Your task to perform on an android device: Open notification settings Image 0: 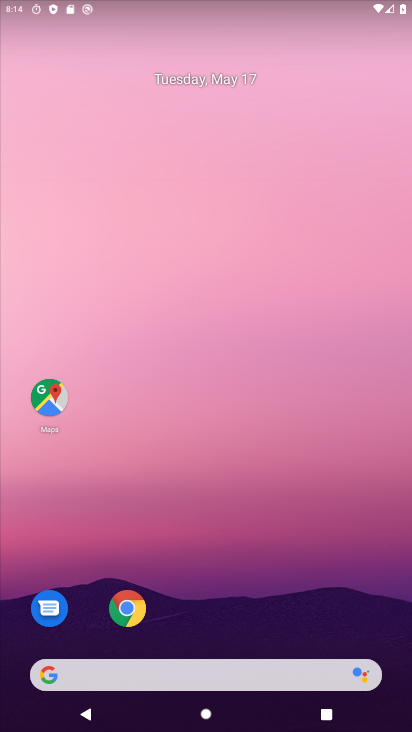
Step 0: drag from (352, 571) to (343, 174)
Your task to perform on an android device: Open notification settings Image 1: 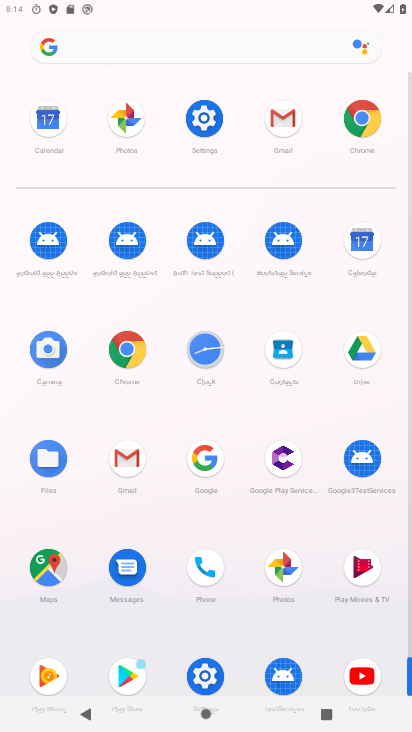
Step 1: click (209, 118)
Your task to perform on an android device: Open notification settings Image 2: 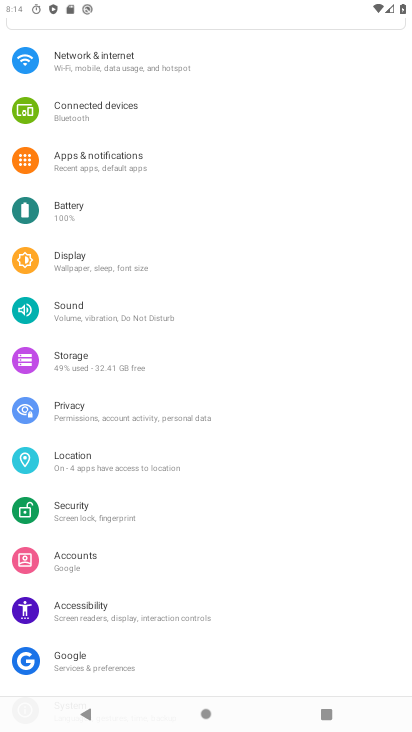
Step 2: click (97, 174)
Your task to perform on an android device: Open notification settings Image 3: 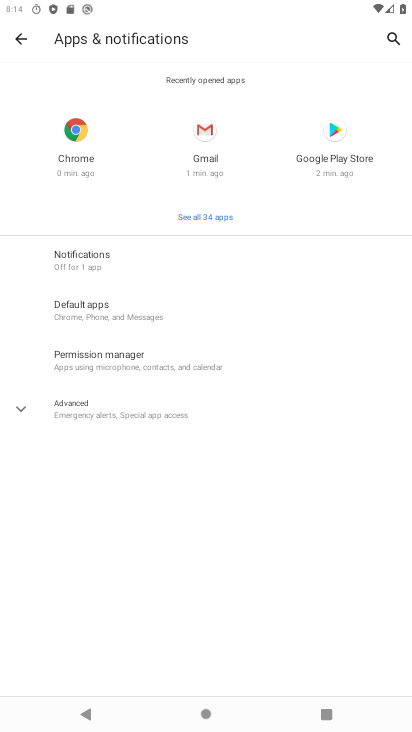
Step 3: click (88, 258)
Your task to perform on an android device: Open notification settings Image 4: 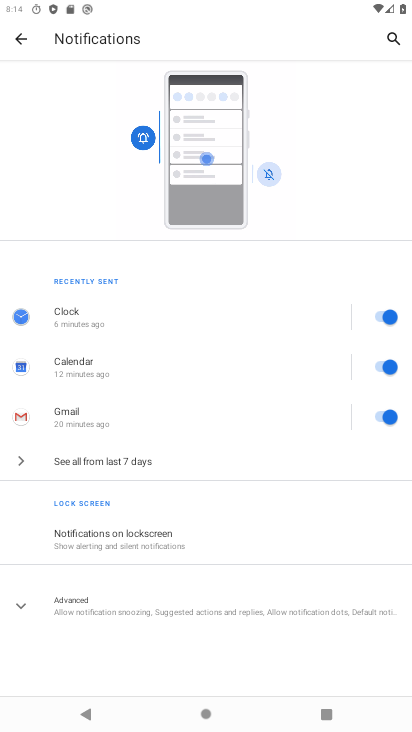
Step 4: task complete